Your task to perform on an android device: check android version Image 0: 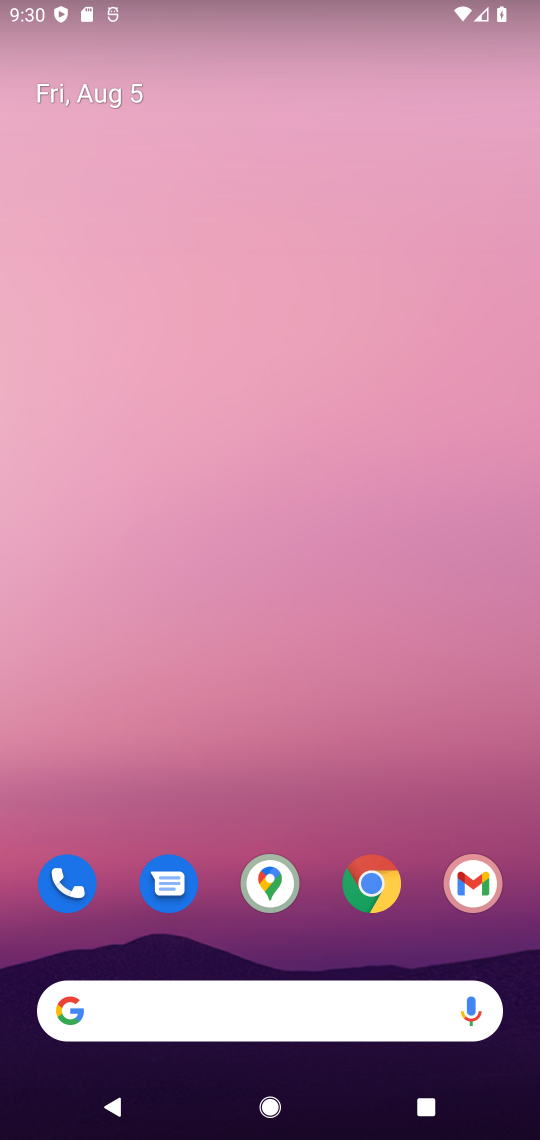
Step 0: drag from (209, 944) to (392, 19)
Your task to perform on an android device: check android version Image 1: 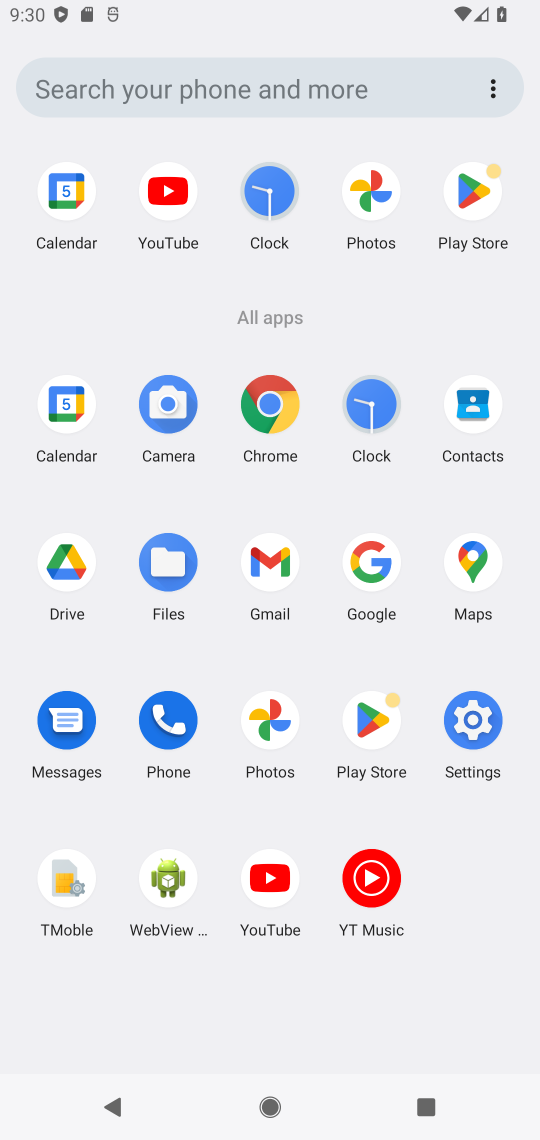
Step 1: click (467, 731)
Your task to perform on an android device: check android version Image 2: 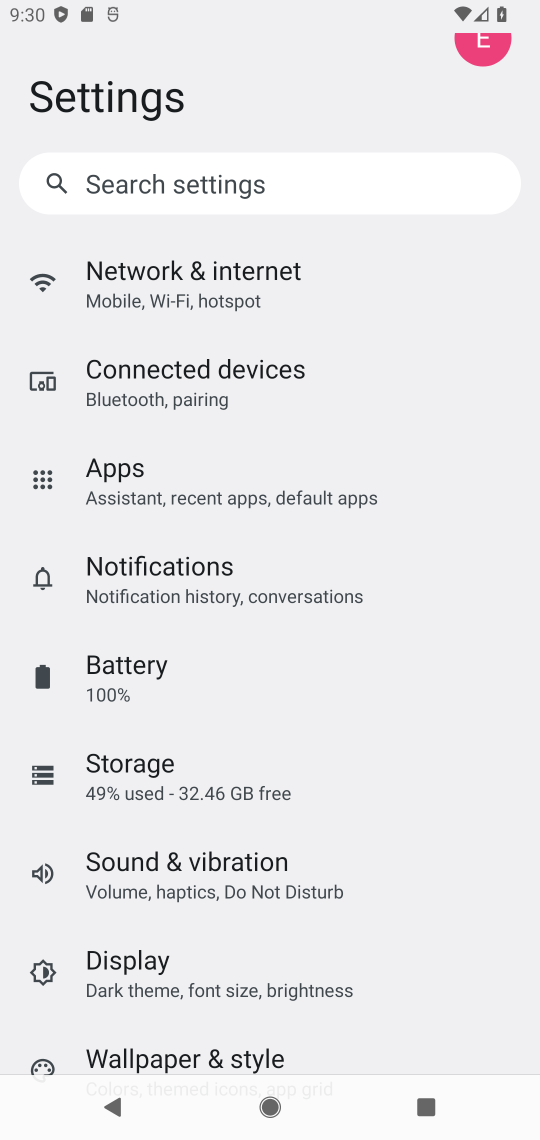
Step 2: drag from (239, 965) to (397, 166)
Your task to perform on an android device: check android version Image 3: 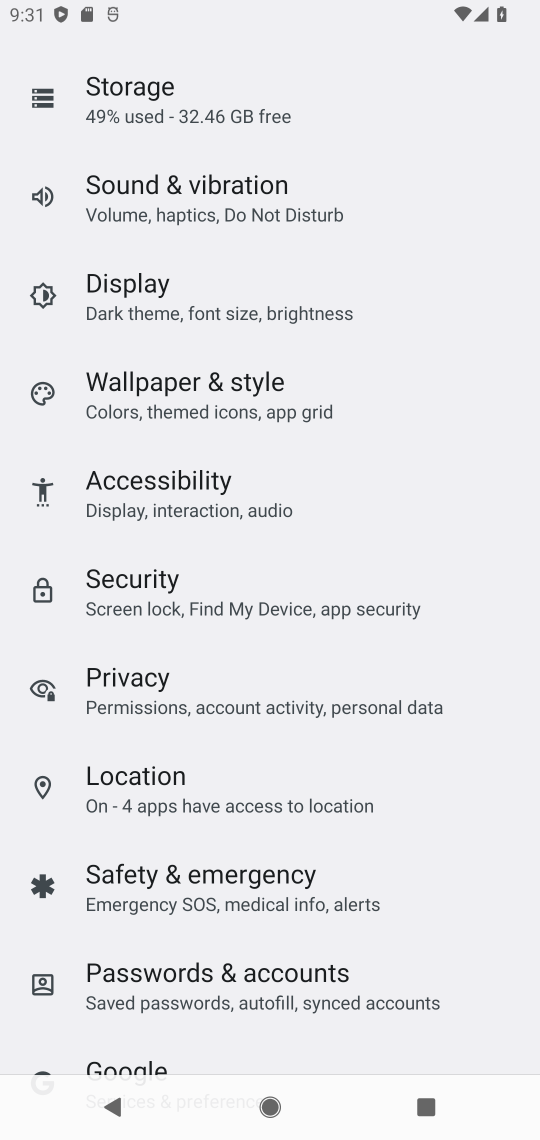
Step 3: drag from (213, 968) to (401, 50)
Your task to perform on an android device: check android version Image 4: 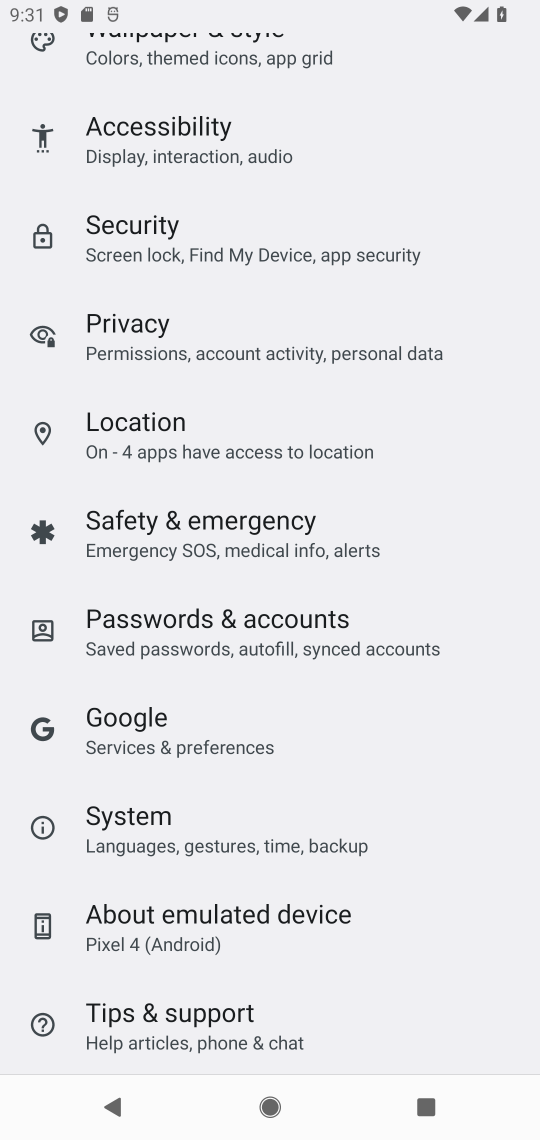
Step 4: drag from (281, 919) to (392, 63)
Your task to perform on an android device: check android version Image 5: 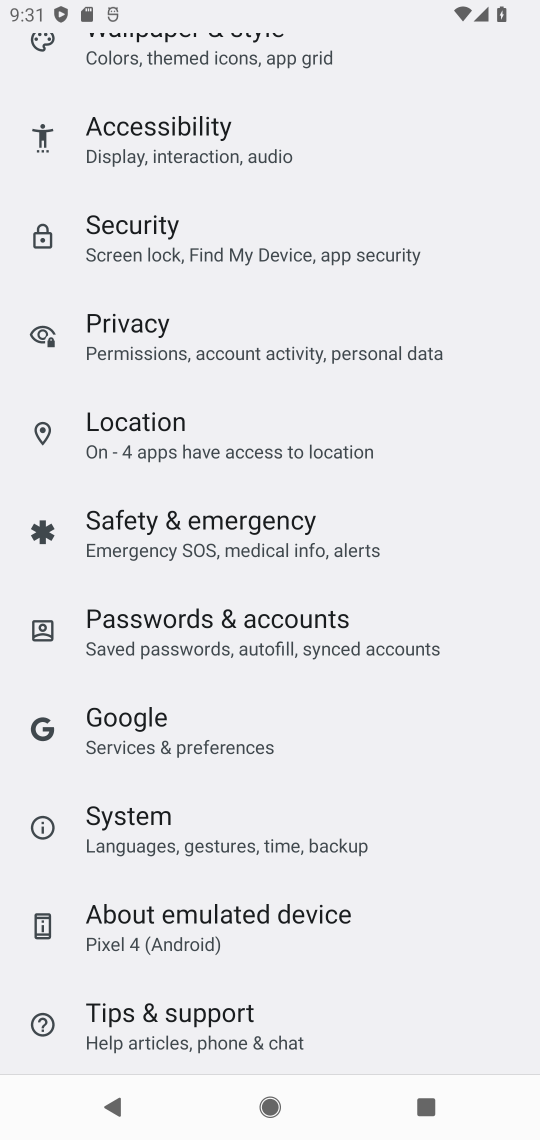
Step 5: drag from (226, 963) to (352, 54)
Your task to perform on an android device: check android version Image 6: 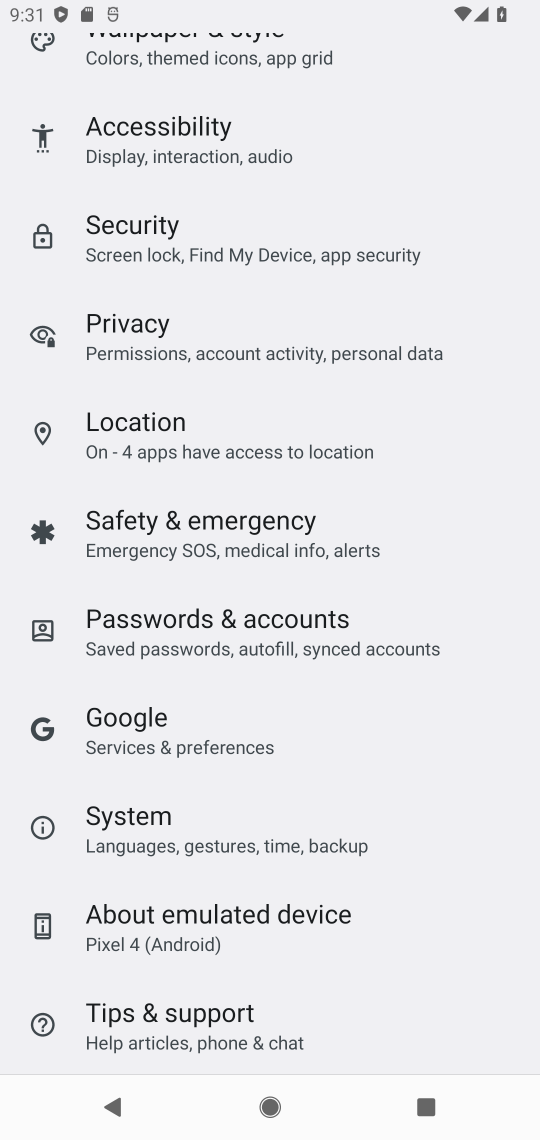
Step 6: drag from (199, 1009) to (327, 211)
Your task to perform on an android device: check android version Image 7: 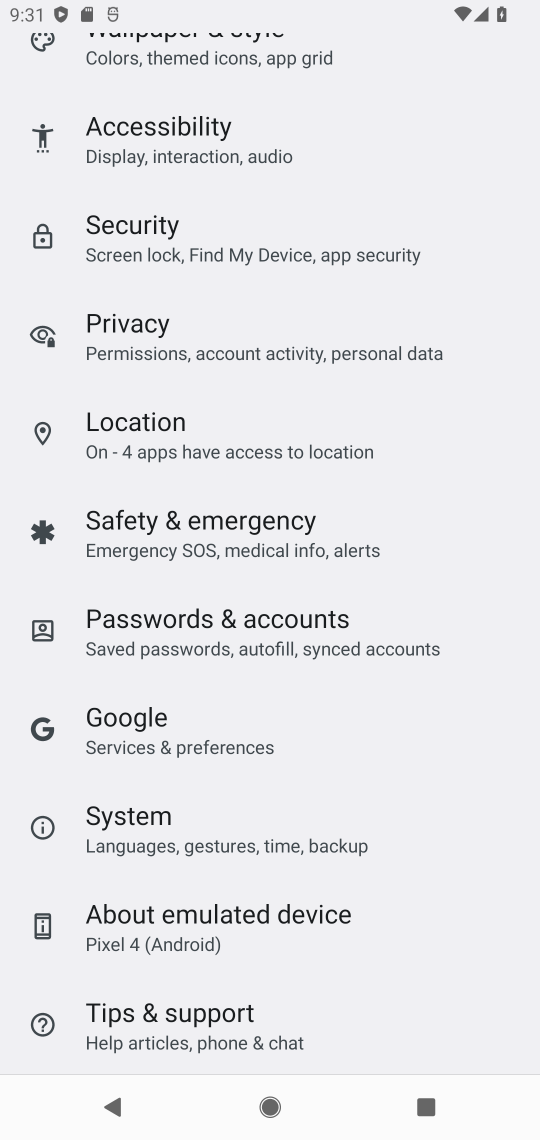
Step 7: click (193, 932)
Your task to perform on an android device: check android version Image 8: 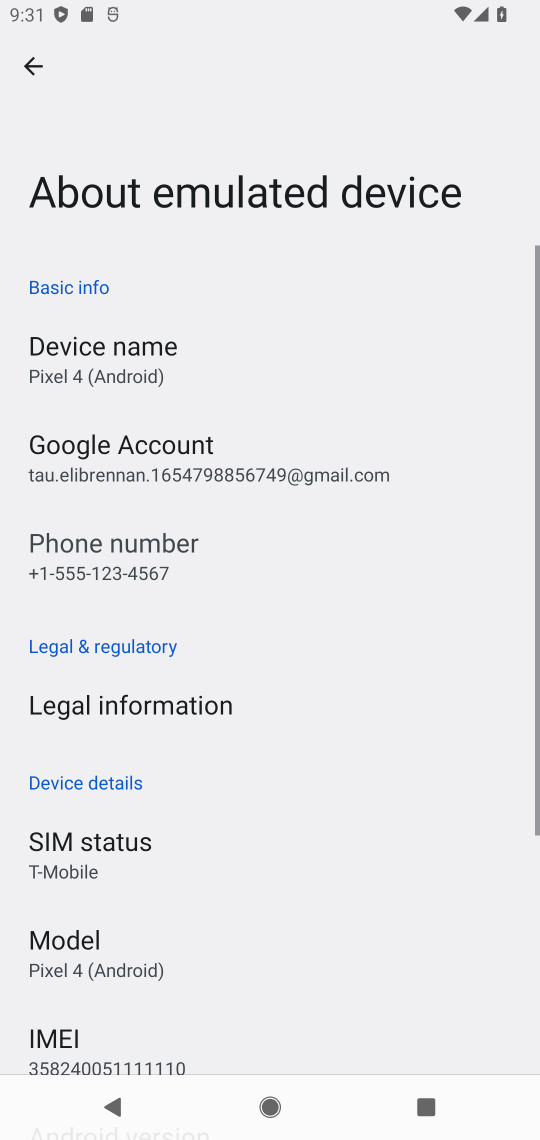
Step 8: drag from (127, 1018) to (304, 59)
Your task to perform on an android device: check android version Image 9: 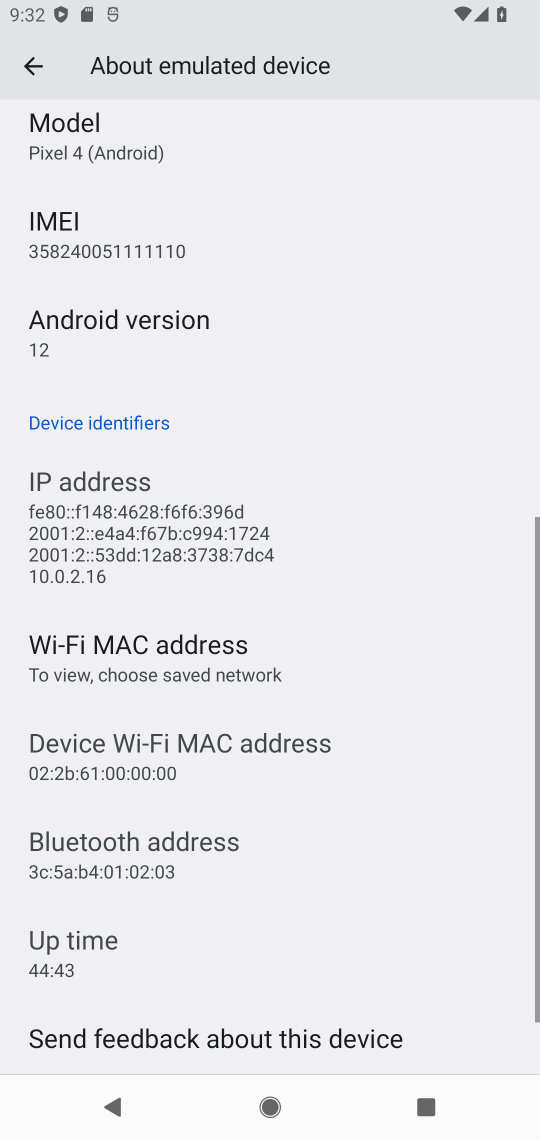
Step 9: drag from (158, 929) to (308, 7)
Your task to perform on an android device: check android version Image 10: 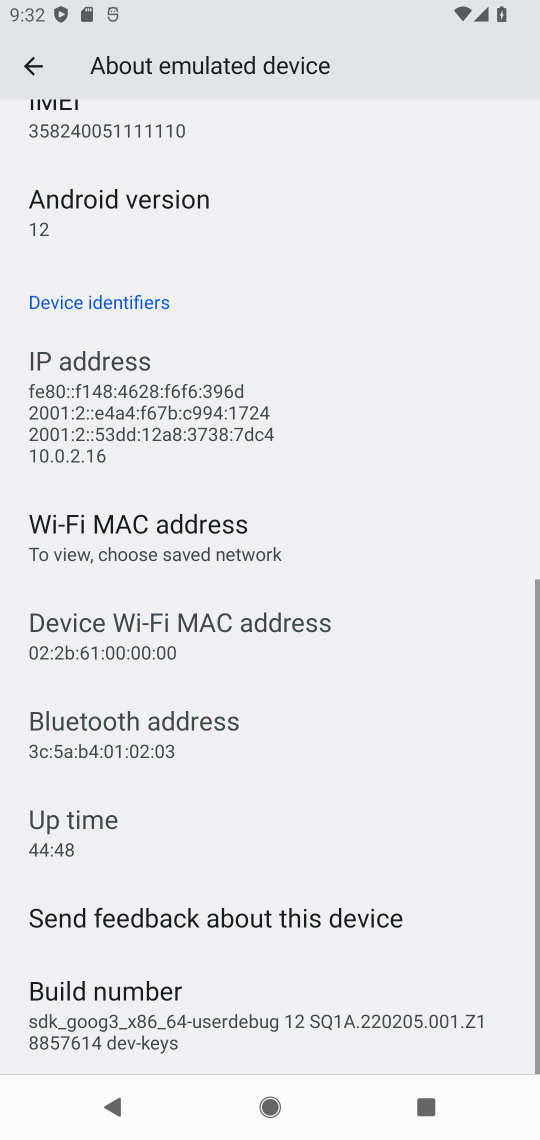
Step 10: drag from (213, 981) to (390, 167)
Your task to perform on an android device: check android version Image 11: 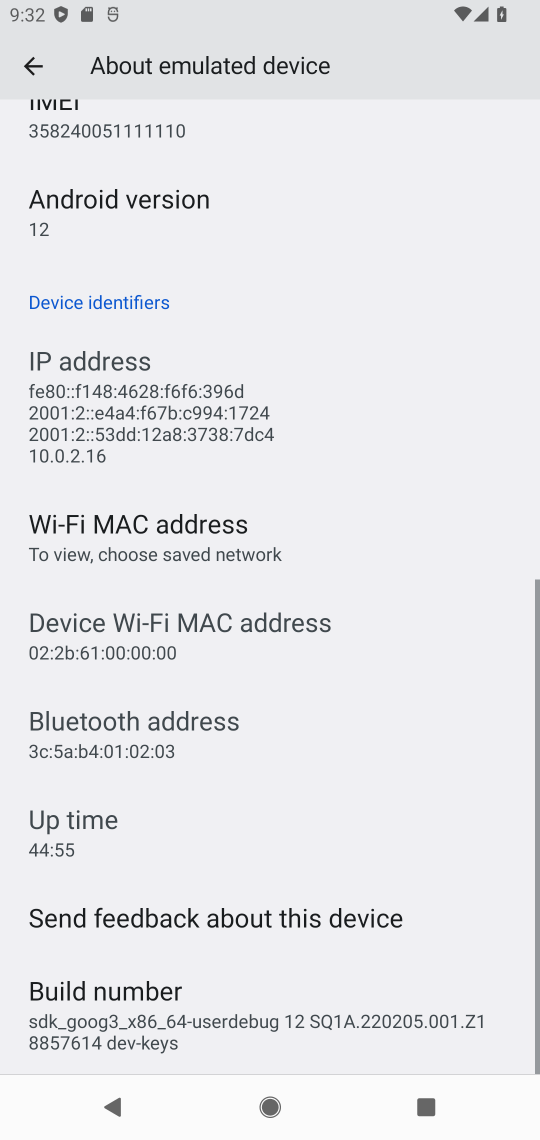
Step 11: click (125, 199)
Your task to perform on an android device: check android version Image 12: 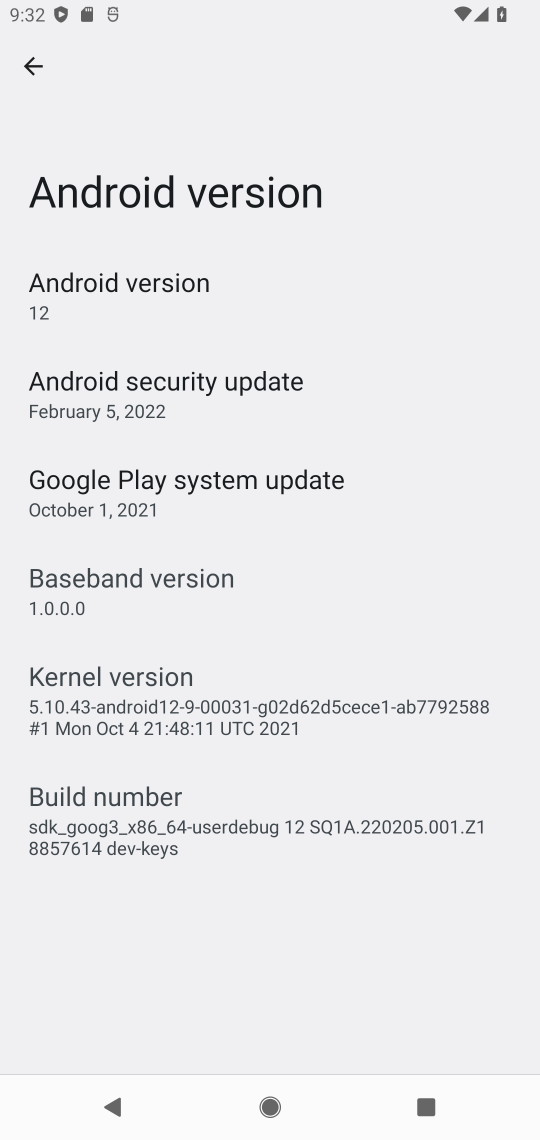
Step 12: task complete